Your task to perform on an android device: allow notifications from all sites in the chrome app Image 0: 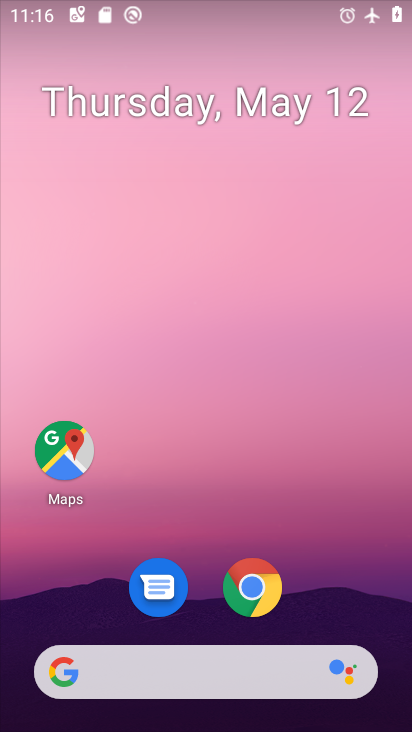
Step 0: drag from (370, 643) to (293, 51)
Your task to perform on an android device: allow notifications from all sites in the chrome app Image 1: 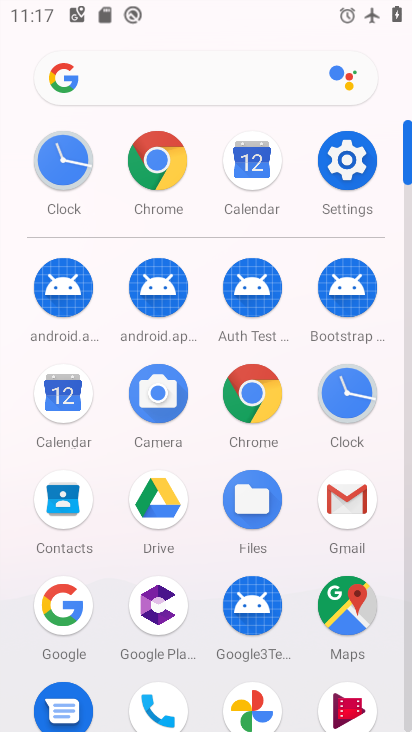
Step 1: click (252, 408)
Your task to perform on an android device: allow notifications from all sites in the chrome app Image 2: 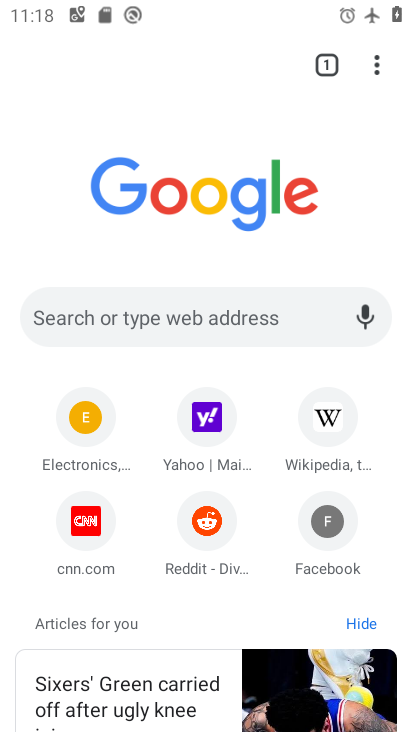
Step 2: click (380, 62)
Your task to perform on an android device: allow notifications from all sites in the chrome app Image 3: 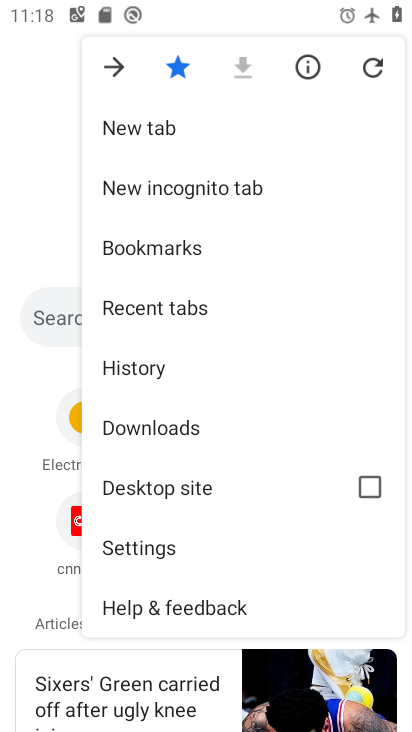
Step 3: click (188, 557)
Your task to perform on an android device: allow notifications from all sites in the chrome app Image 4: 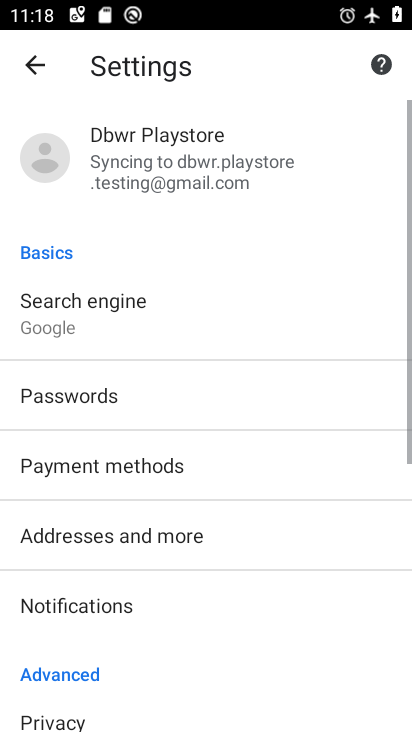
Step 4: click (135, 610)
Your task to perform on an android device: allow notifications from all sites in the chrome app Image 5: 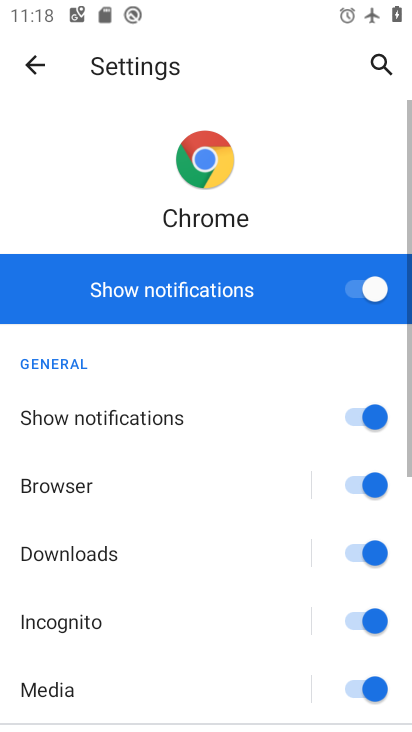
Step 5: task complete